Your task to perform on an android device: Is it going to rain today? Image 0: 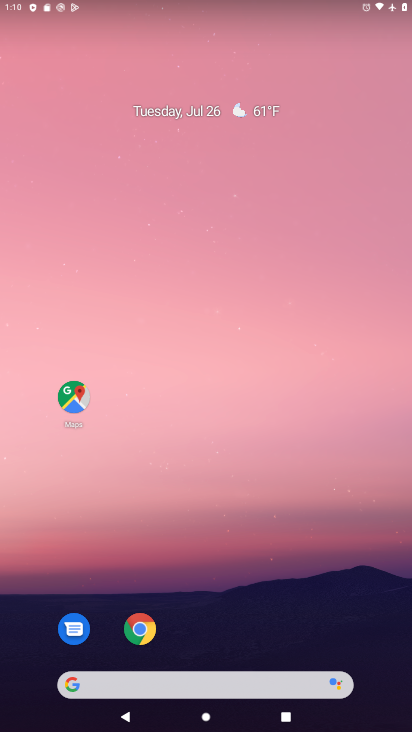
Step 0: drag from (222, 651) to (172, 25)
Your task to perform on an android device: Is it going to rain today? Image 1: 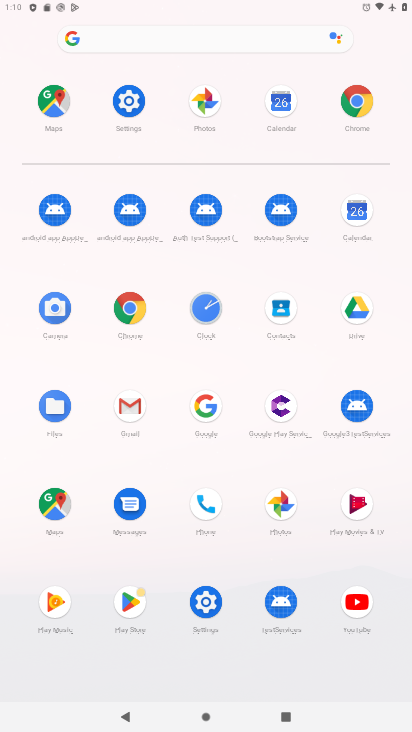
Step 1: click (212, 407)
Your task to perform on an android device: Is it going to rain today? Image 2: 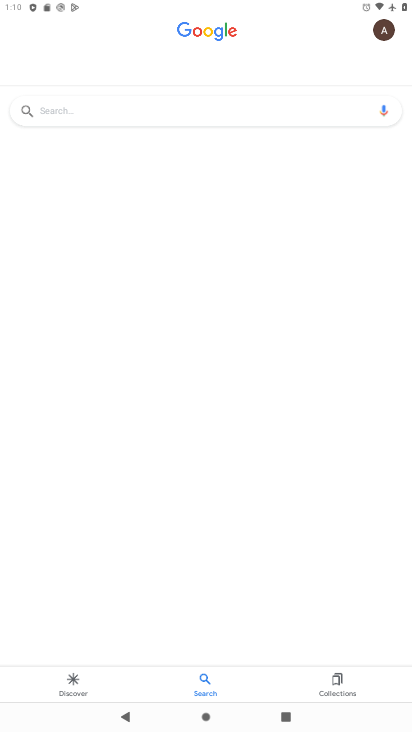
Step 2: click (132, 116)
Your task to perform on an android device: Is it going to rain today? Image 3: 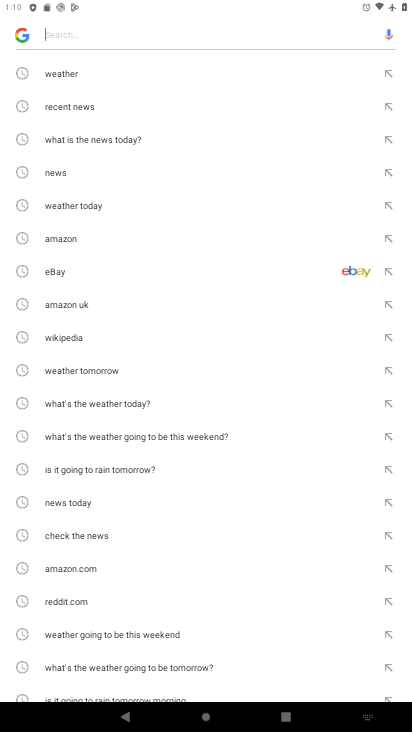
Step 3: click (81, 70)
Your task to perform on an android device: Is it going to rain today? Image 4: 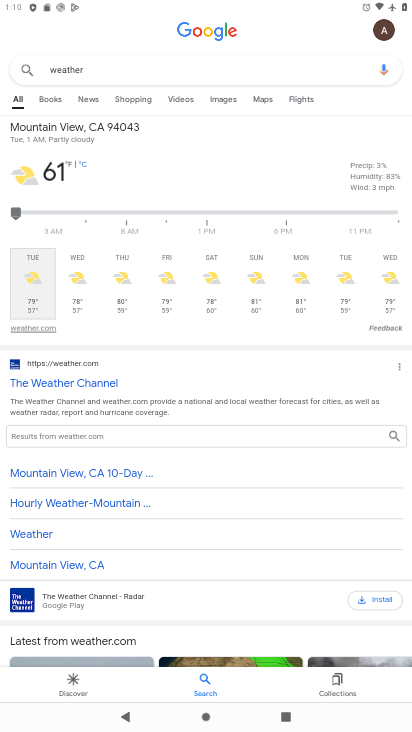
Step 4: click (13, 287)
Your task to perform on an android device: Is it going to rain today? Image 5: 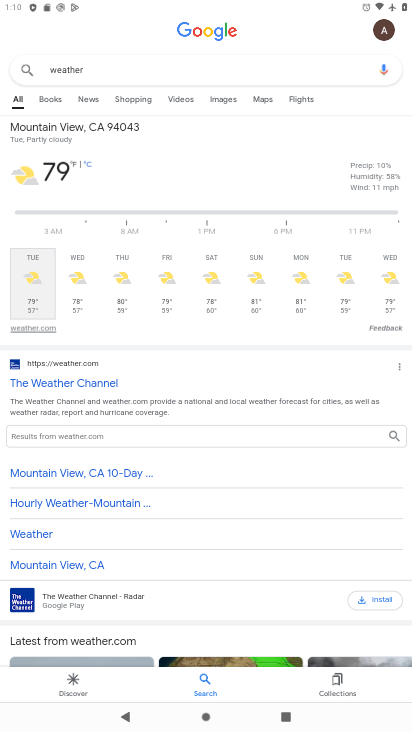
Step 5: task complete